Your task to perform on an android device: Open the downloads Image 0: 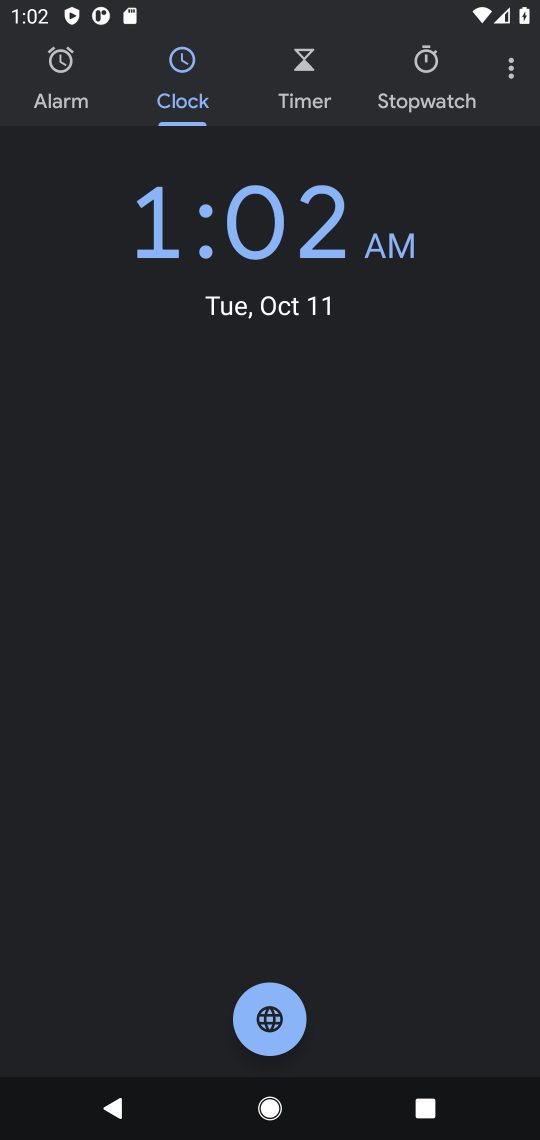
Step 0: press home button
Your task to perform on an android device: Open the downloads Image 1: 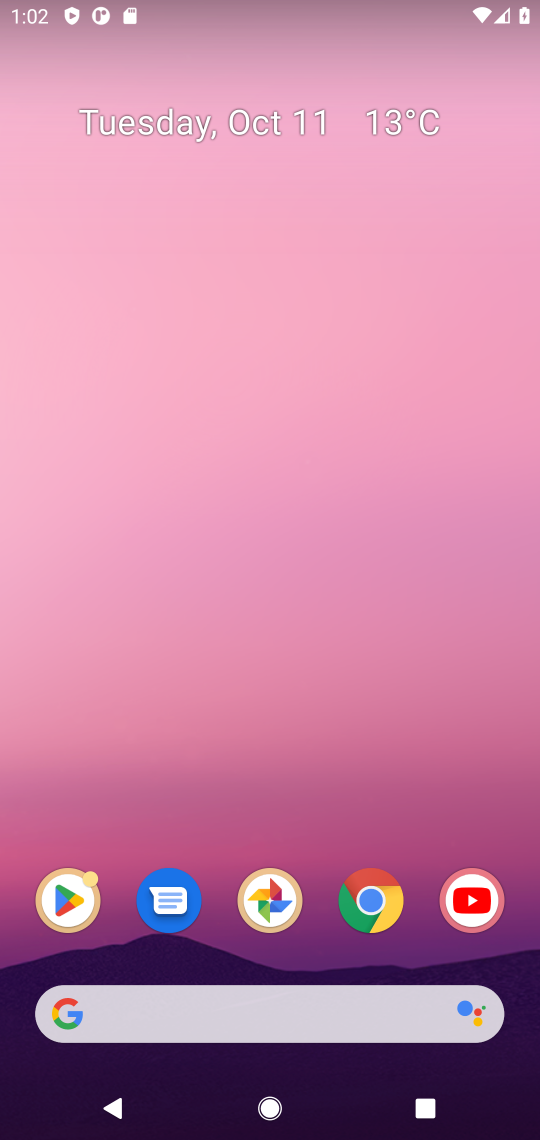
Step 1: drag from (313, 363) to (231, 6)
Your task to perform on an android device: Open the downloads Image 2: 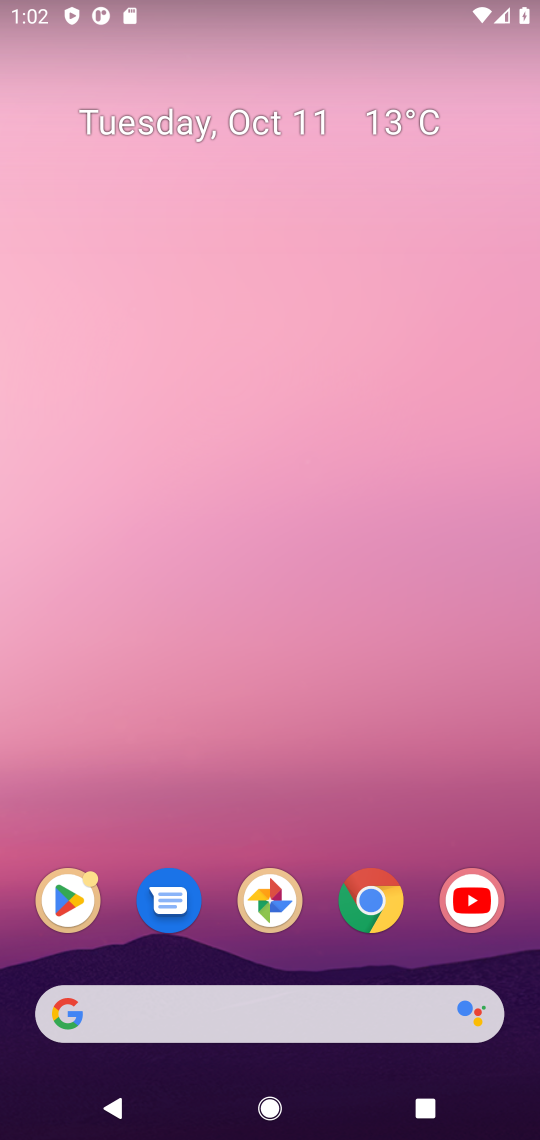
Step 2: drag from (253, 851) to (208, 0)
Your task to perform on an android device: Open the downloads Image 3: 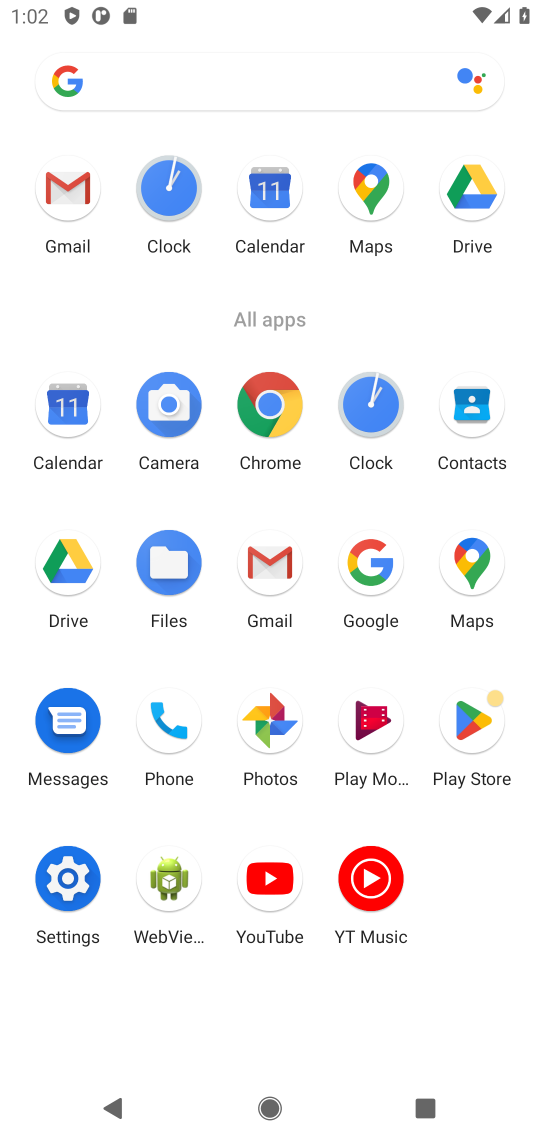
Step 3: click (166, 577)
Your task to perform on an android device: Open the downloads Image 4: 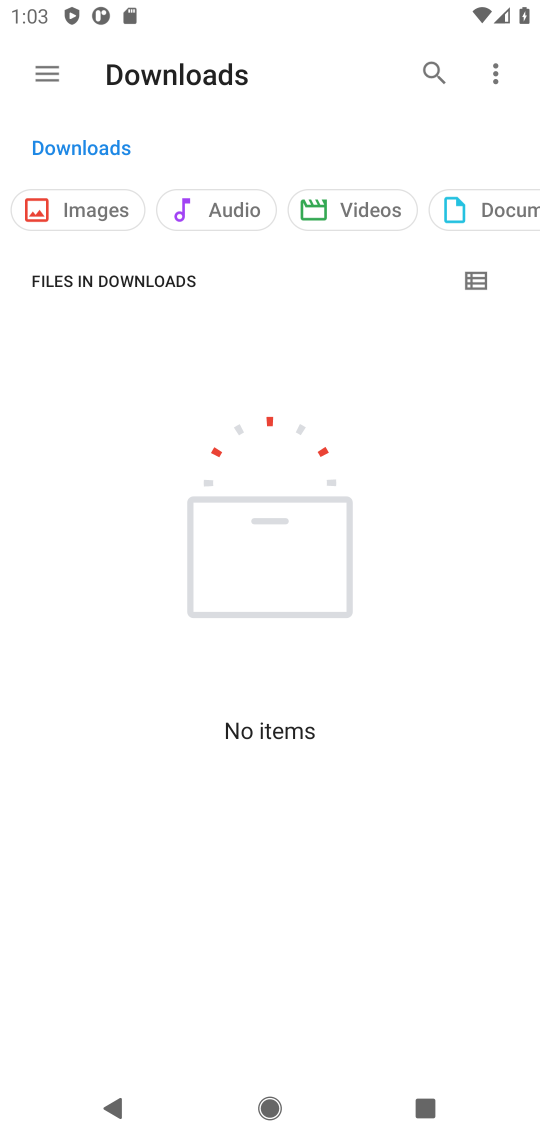
Step 4: task complete